Your task to perform on an android device: see tabs open on other devices in the chrome app Image 0: 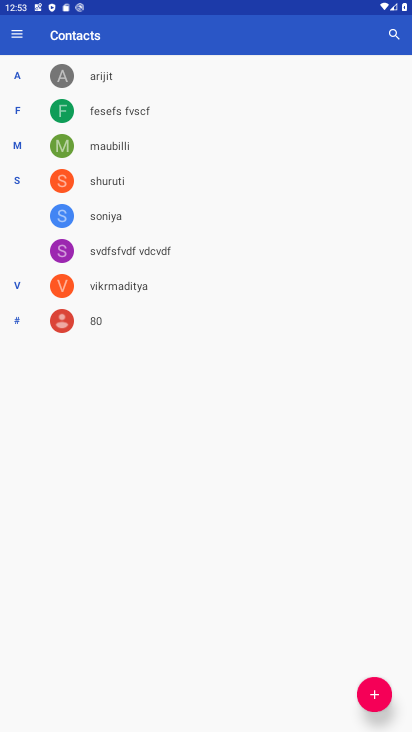
Step 0: press home button
Your task to perform on an android device: see tabs open on other devices in the chrome app Image 1: 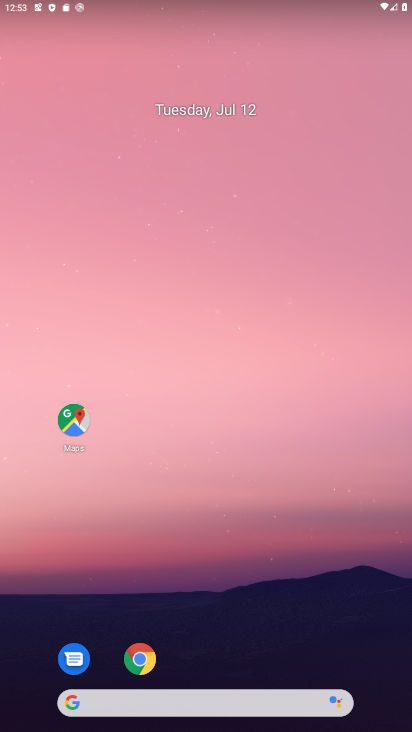
Step 1: click (137, 660)
Your task to perform on an android device: see tabs open on other devices in the chrome app Image 2: 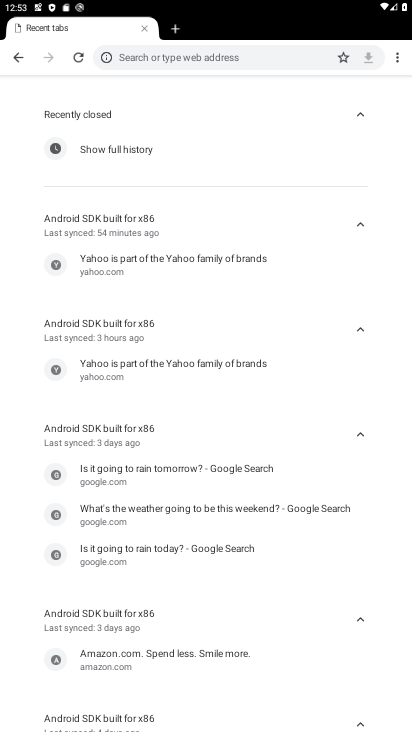
Step 2: task complete